Your task to perform on an android device: refresh tabs in the chrome app Image 0: 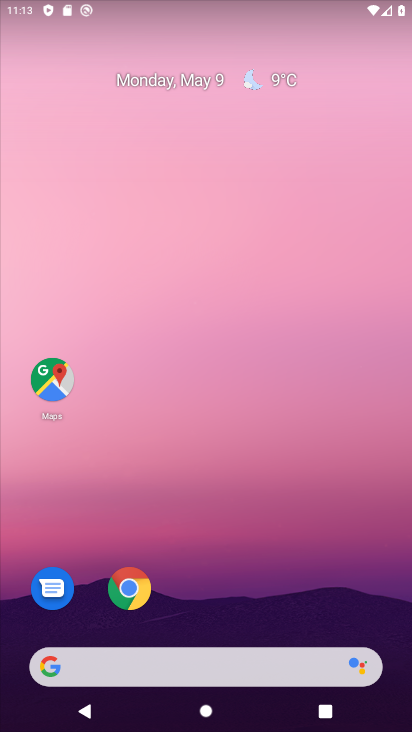
Step 0: drag from (251, 528) to (243, 210)
Your task to perform on an android device: refresh tabs in the chrome app Image 1: 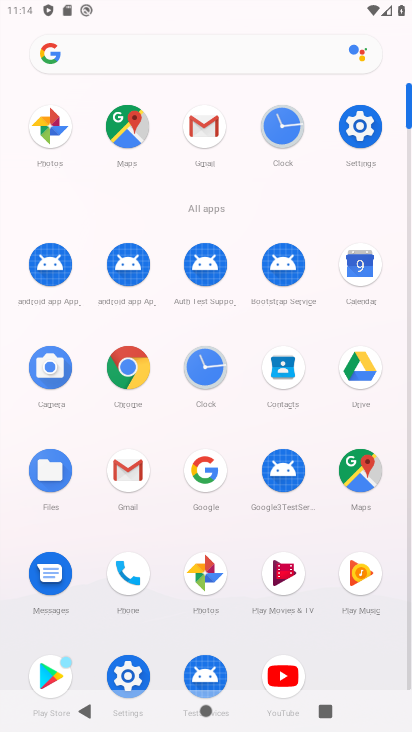
Step 1: click (141, 362)
Your task to perform on an android device: refresh tabs in the chrome app Image 2: 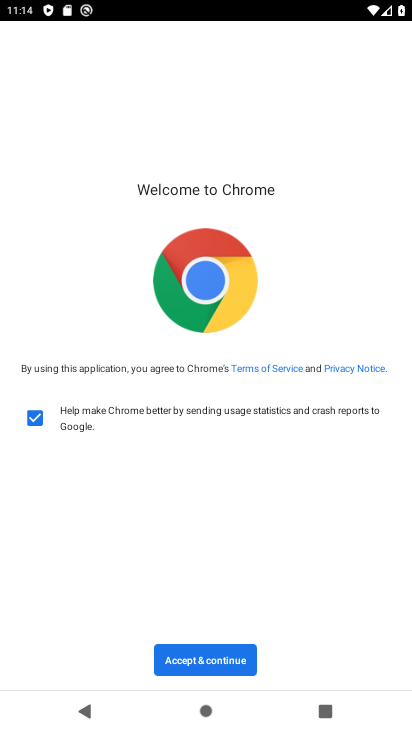
Step 2: click (171, 647)
Your task to perform on an android device: refresh tabs in the chrome app Image 3: 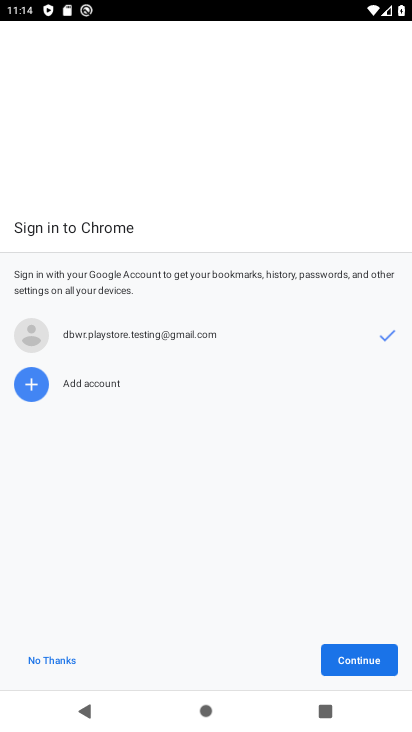
Step 3: click (360, 652)
Your task to perform on an android device: refresh tabs in the chrome app Image 4: 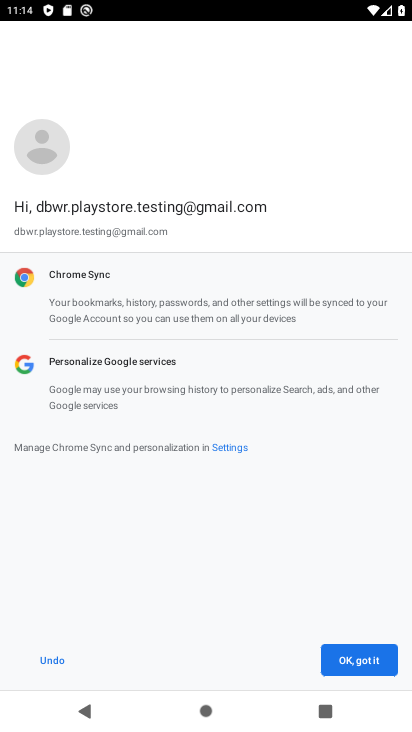
Step 4: click (358, 658)
Your task to perform on an android device: refresh tabs in the chrome app Image 5: 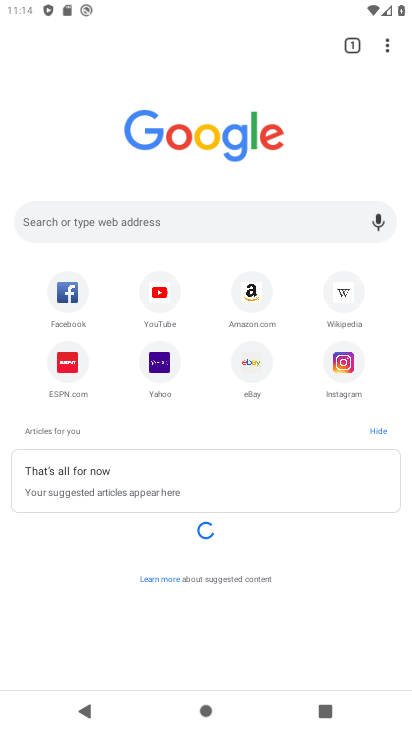
Step 5: click (382, 47)
Your task to perform on an android device: refresh tabs in the chrome app Image 6: 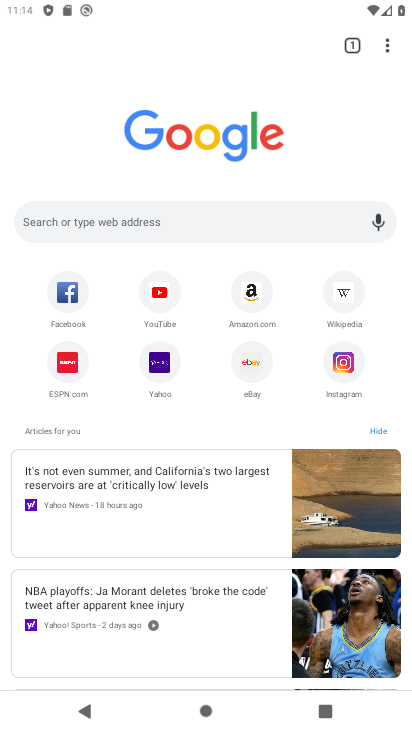
Step 6: click (380, 43)
Your task to perform on an android device: refresh tabs in the chrome app Image 7: 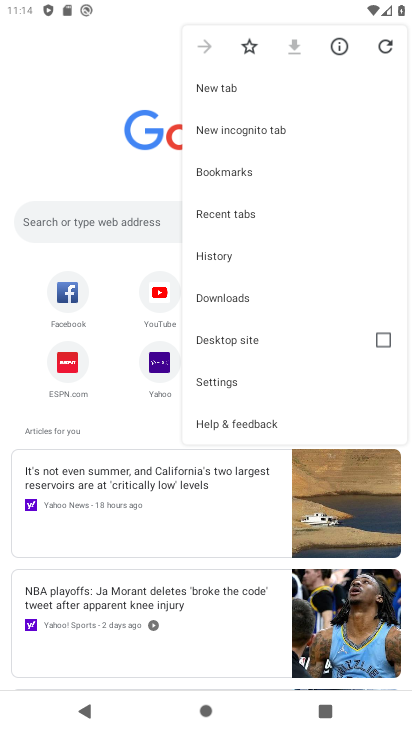
Step 7: click (392, 41)
Your task to perform on an android device: refresh tabs in the chrome app Image 8: 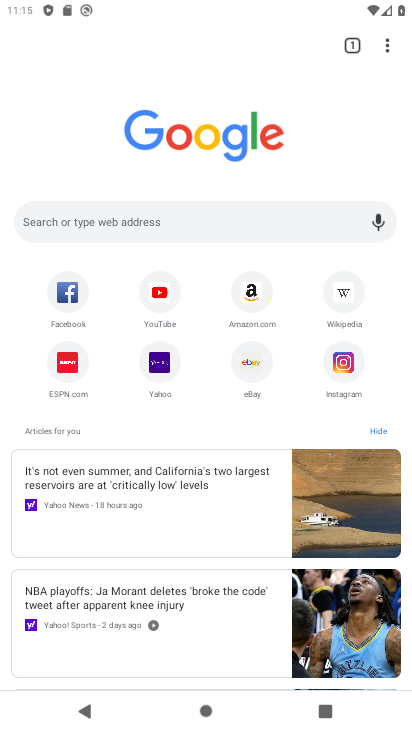
Step 8: task complete